Your task to perform on an android device: Search for pizza restaurants on Maps Image 0: 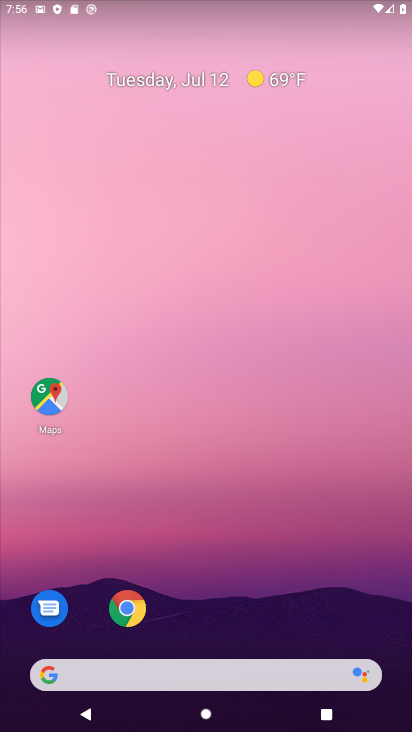
Step 0: drag from (161, 600) to (161, 235)
Your task to perform on an android device: Search for pizza restaurants on Maps Image 1: 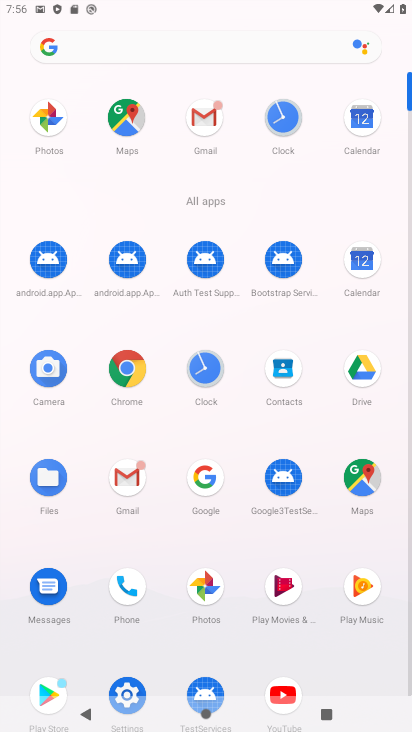
Step 1: click (119, 119)
Your task to perform on an android device: Search for pizza restaurants on Maps Image 2: 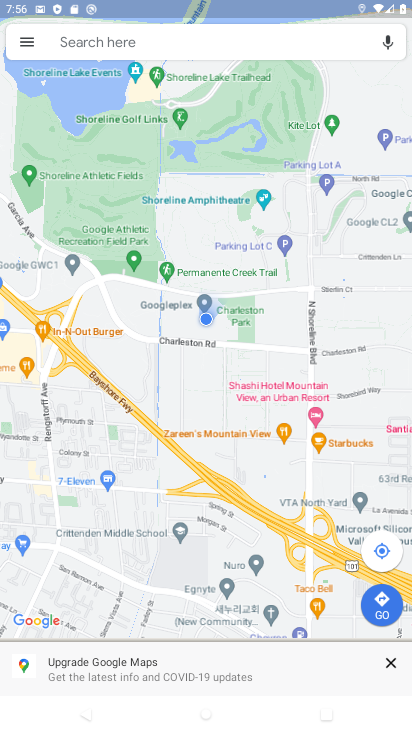
Step 2: click (137, 37)
Your task to perform on an android device: Search for pizza restaurants on Maps Image 3: 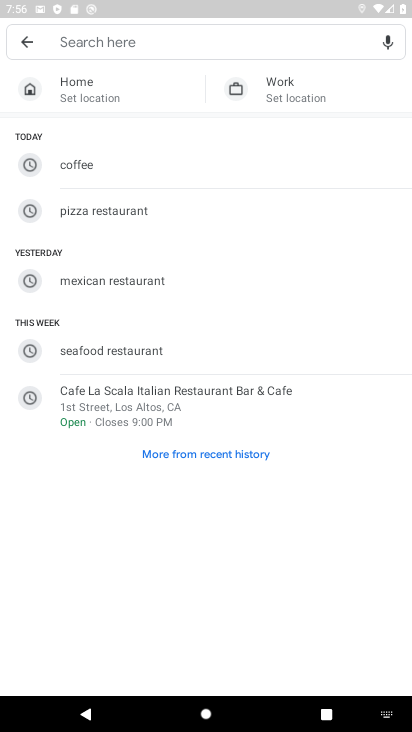
Step 3: type " pizza restaurants"
Your task to perform on an android device: Search for pizza restaurants on Maps Image 4: 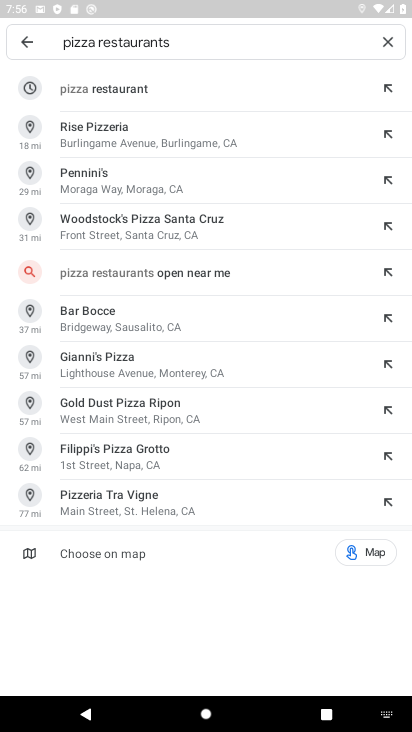
Step 4: click (124, 83)
Your task to perform on an android device: Search for pizza restaurants on Maps Image 5: 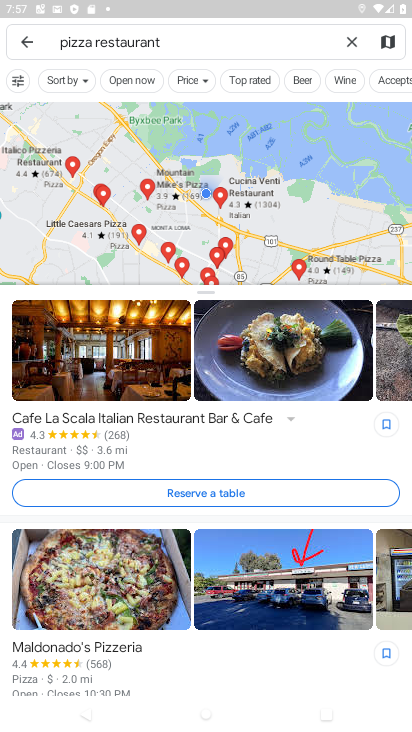
Step 5: task complete